Your task to perform on an android device: Open Amazon Image 0: 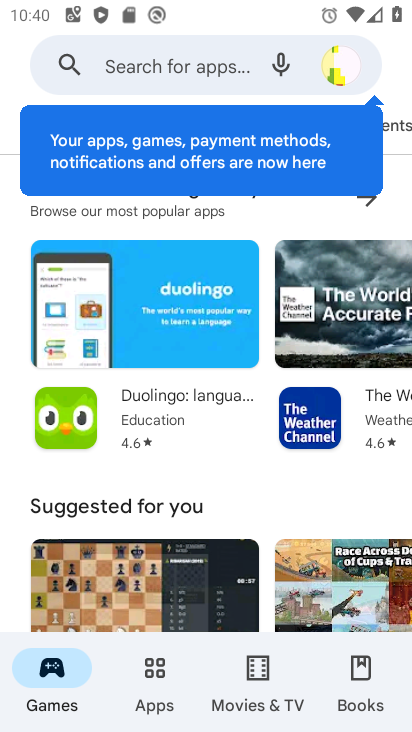
Step 0: press home button
Your task to perform on an android device: Open Amazon Image 1: 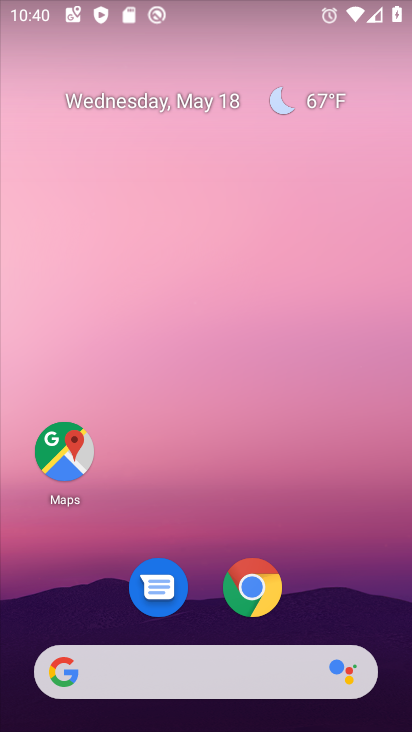
Step 1: click (262, 585)
Your task to perform on an android device: Open Amazon Image 2: 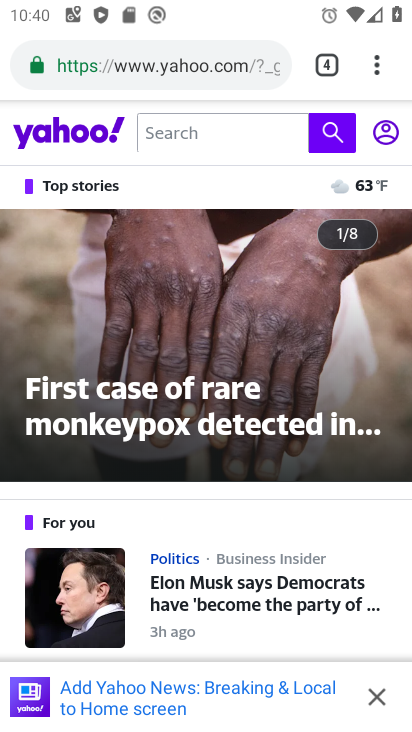
Step 2: click (327, 62)
Your task to perform on an android device: Open Amazon Image 3: 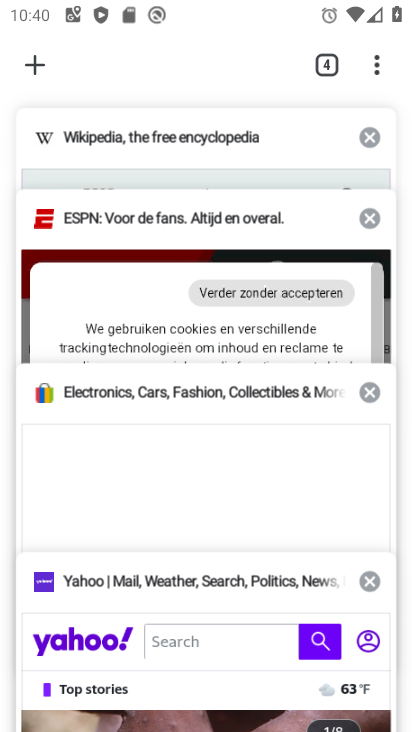
Step 3: click (39, 63)
Your task to perform on an android device: Open Amazon Image 4: 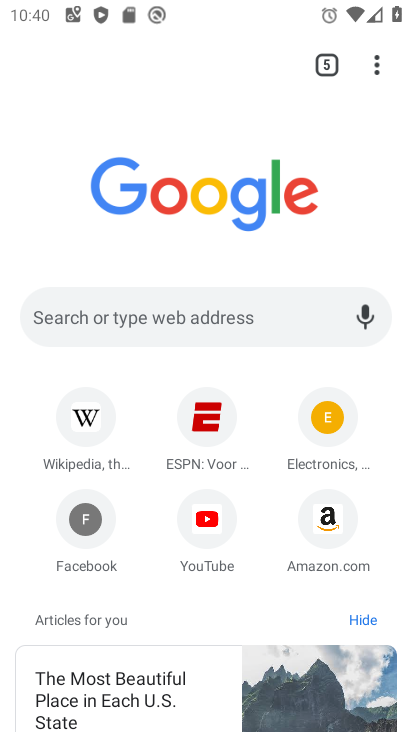
Step 4: click (326, 517)
Your task to perform on an android device: Open Amazon Image 5: 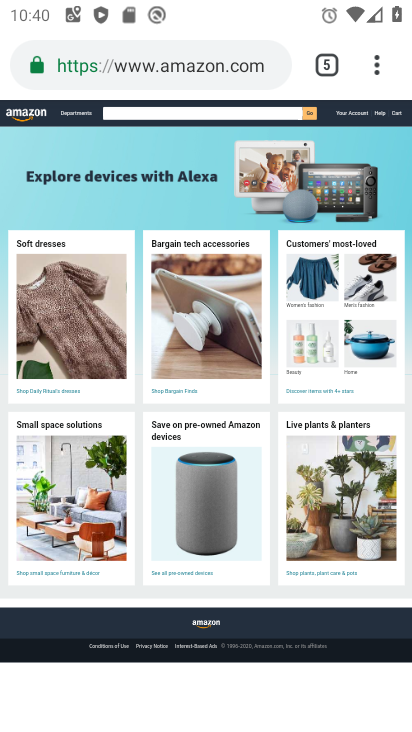
Step 5: task complete